Your task to perform on an android device: turn notification dots on Image 0: 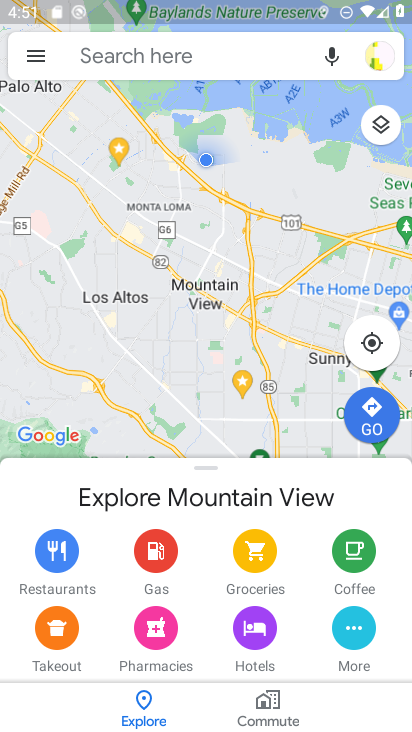
Step 0: press home button
Your task to perform on an android device: turn notification dots on Image 1: 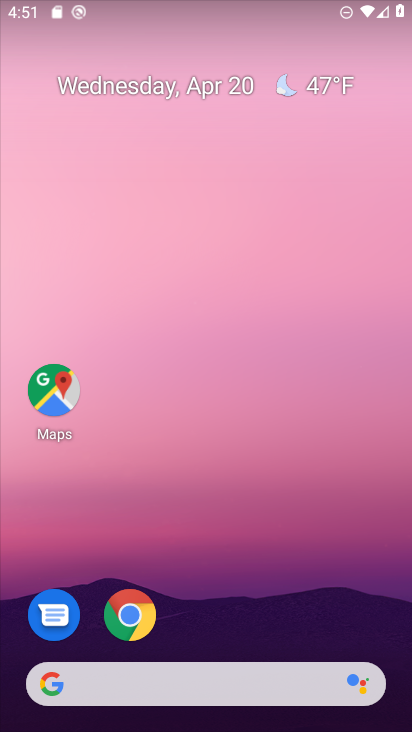
Step 1: drag from (291, 552) to (311, 61)
Your task to perform on an android device: turn notification dots on Image 2: 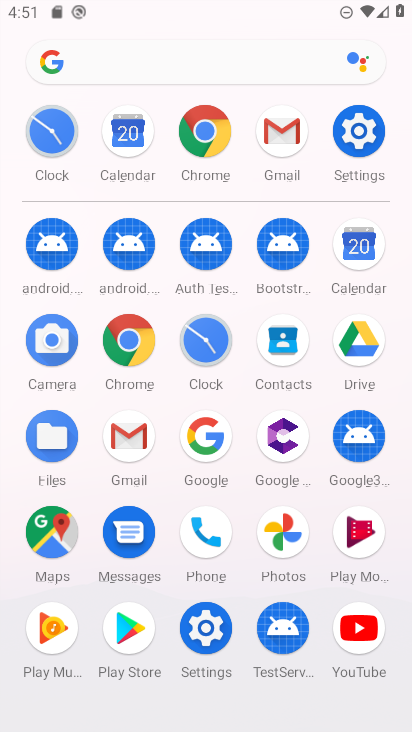
Step 2: click (367, 135)
Your task to perform on an android device: turn notification dots on Image 3: 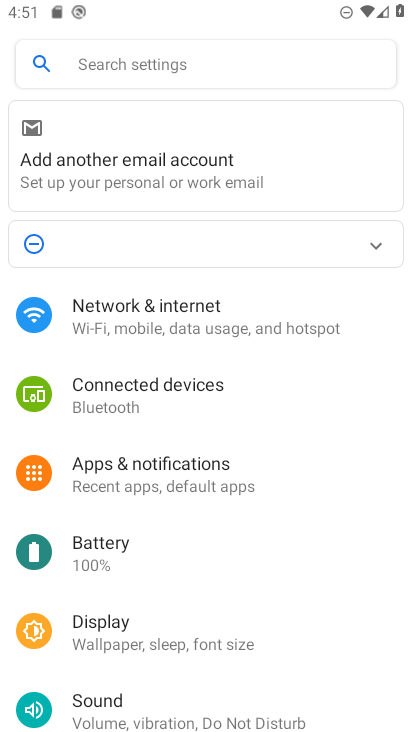
Step 3: click (204, 472)
Your task to perform on an android device: turn notification dots on Image 4: 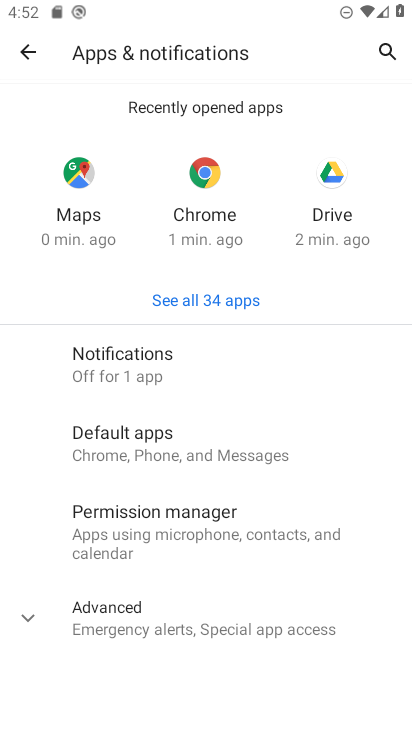
Step 4: click (173, 363)
Your task to perform on an android device: turn notification dots on Image 5: 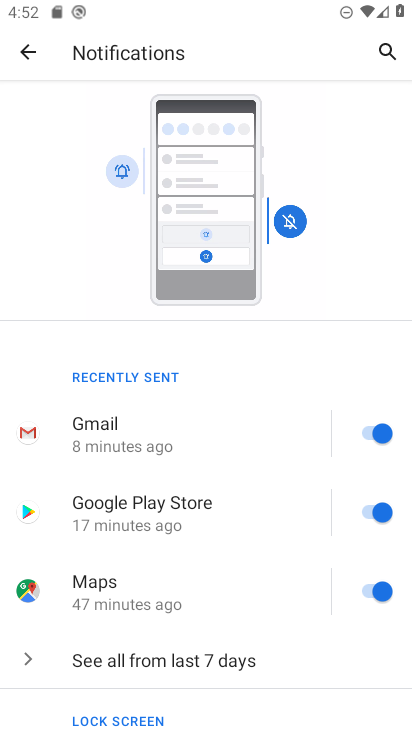
Step 5: drag from (272, 680) to (261, 329)
Your task to perform on an android device: turn notification dots on Image 6: 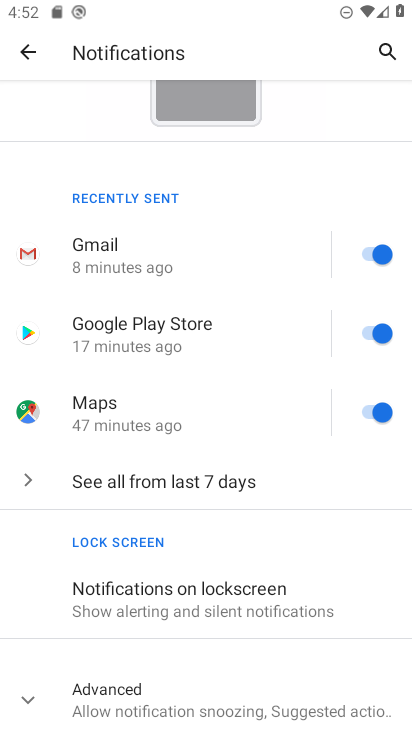
Step 6: click (242, 706)
Your task to perform on an android device: turn notification dots on Image 7: 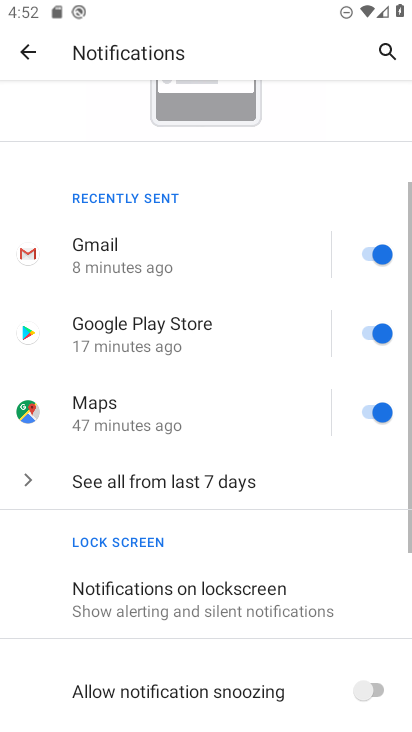
Step 7: task complete